Your task to perform on an android device: Open Android settings Image 0: 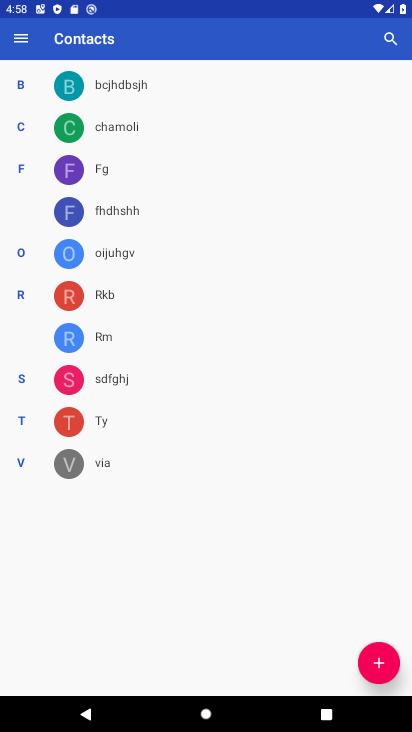
Step 0: drag from (244, 5) to (291, 650)
Your task to perform on an android device: Open Android settings Image 1: 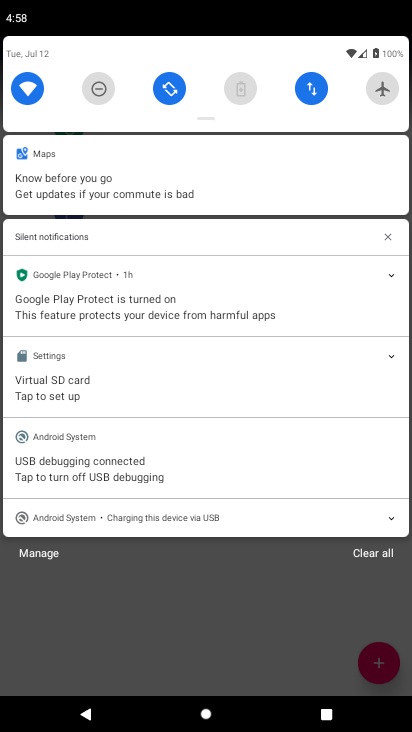
Step 1: drag from (245, 57) to (274, 722)
Your task to perform on an android device: Open Android settings Image 2: 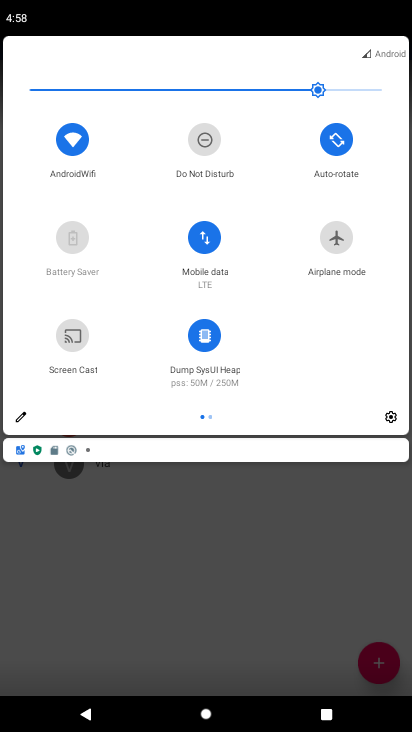
Step 2: click (393, 422)
Your task to perform on an android device: Open Android settings Image 3: 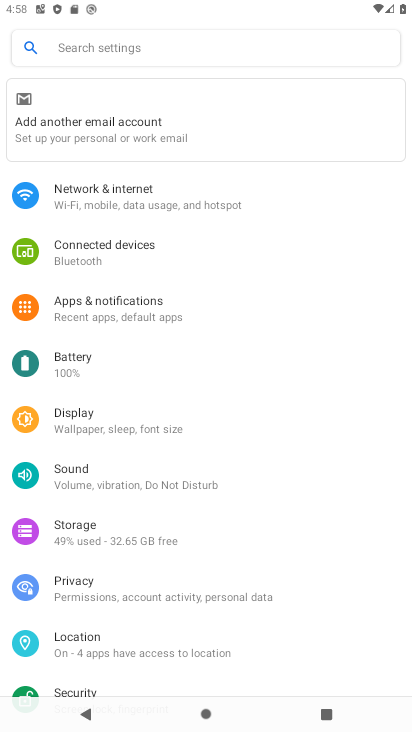
Step 3: task complete